Your task to perform on an android device: check google app version Image 0: 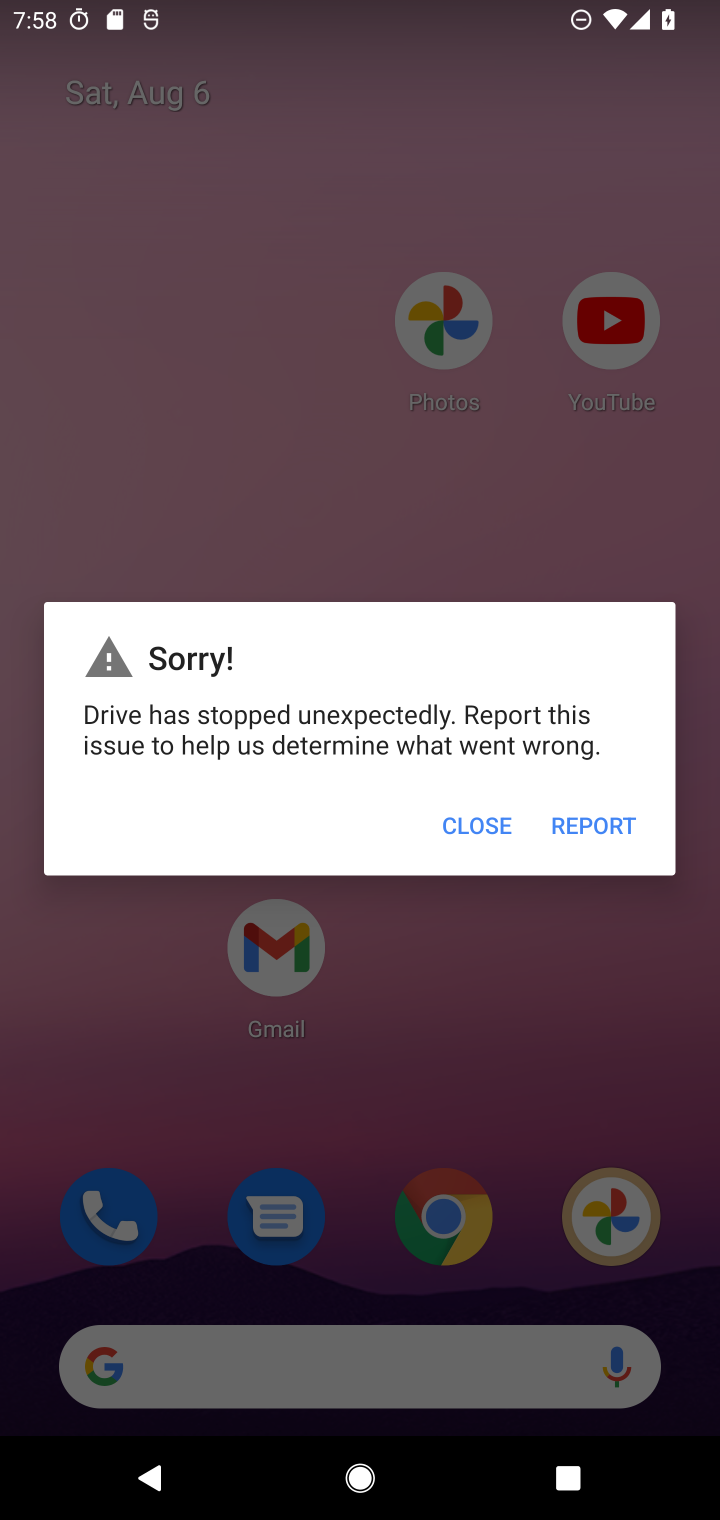
Step 0: press home button
Your task to perform on an android device: check google app version Image 1: 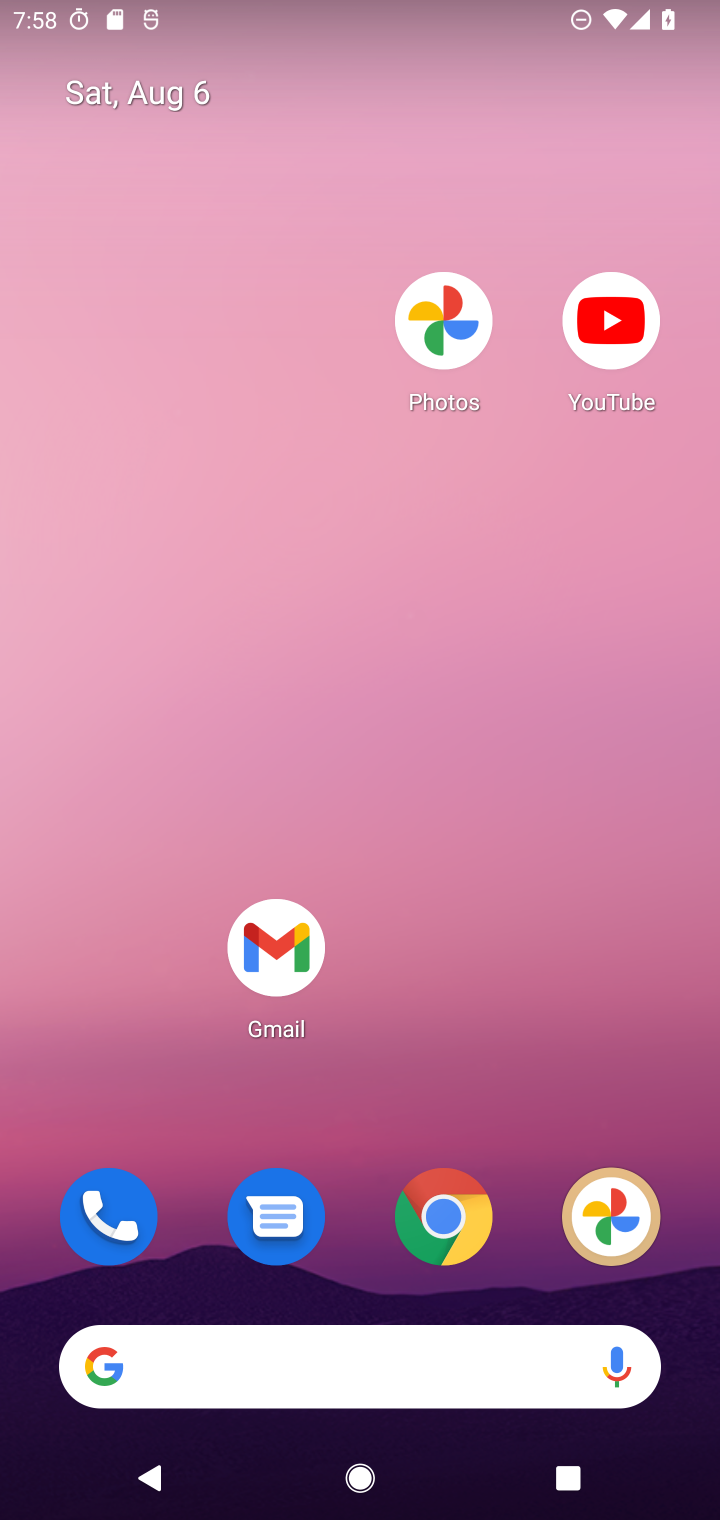
Step 1: drag from (547, 848) to (535, 190)
Your task to perform on an android device: check google app version Image 2: 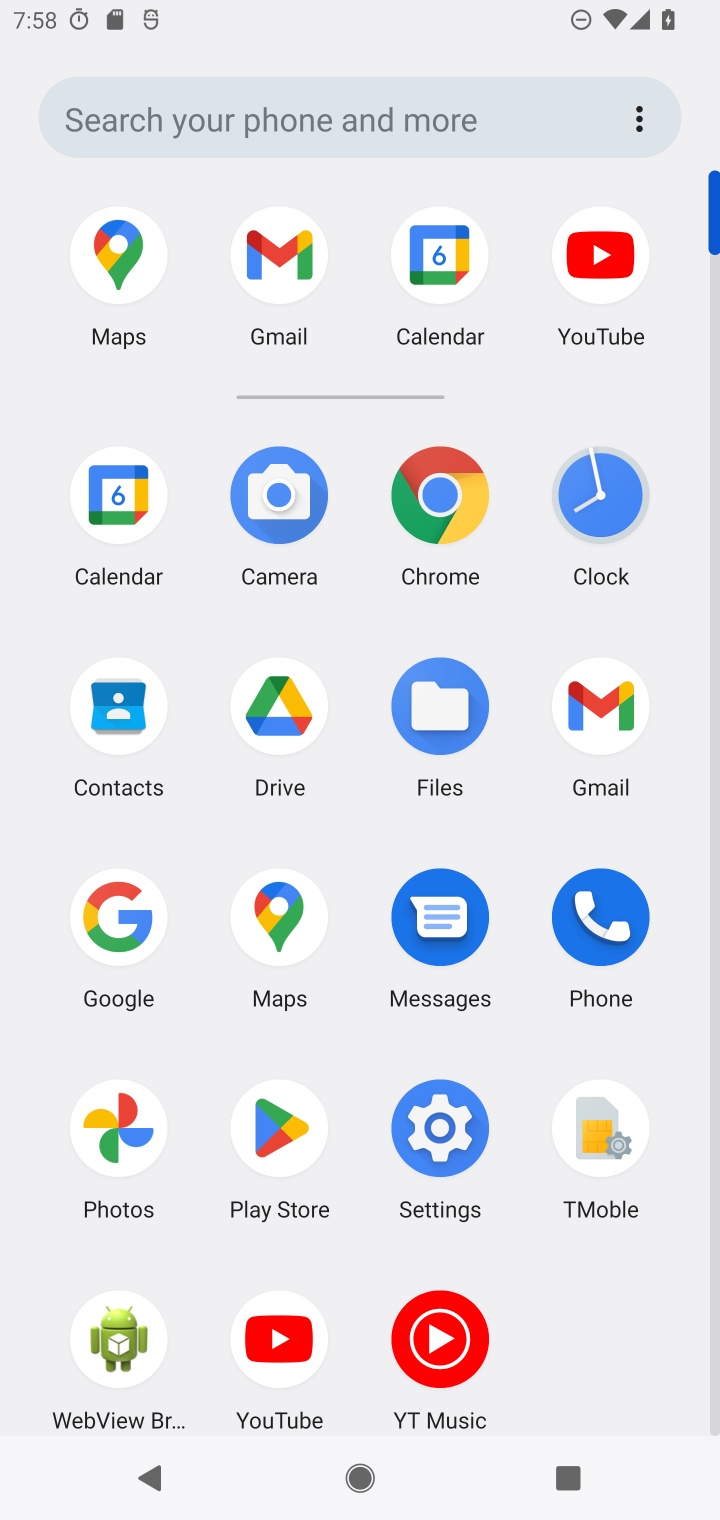
Step 2: click (115, 911)
Your task to perform on an android device: check google app version Image 3: 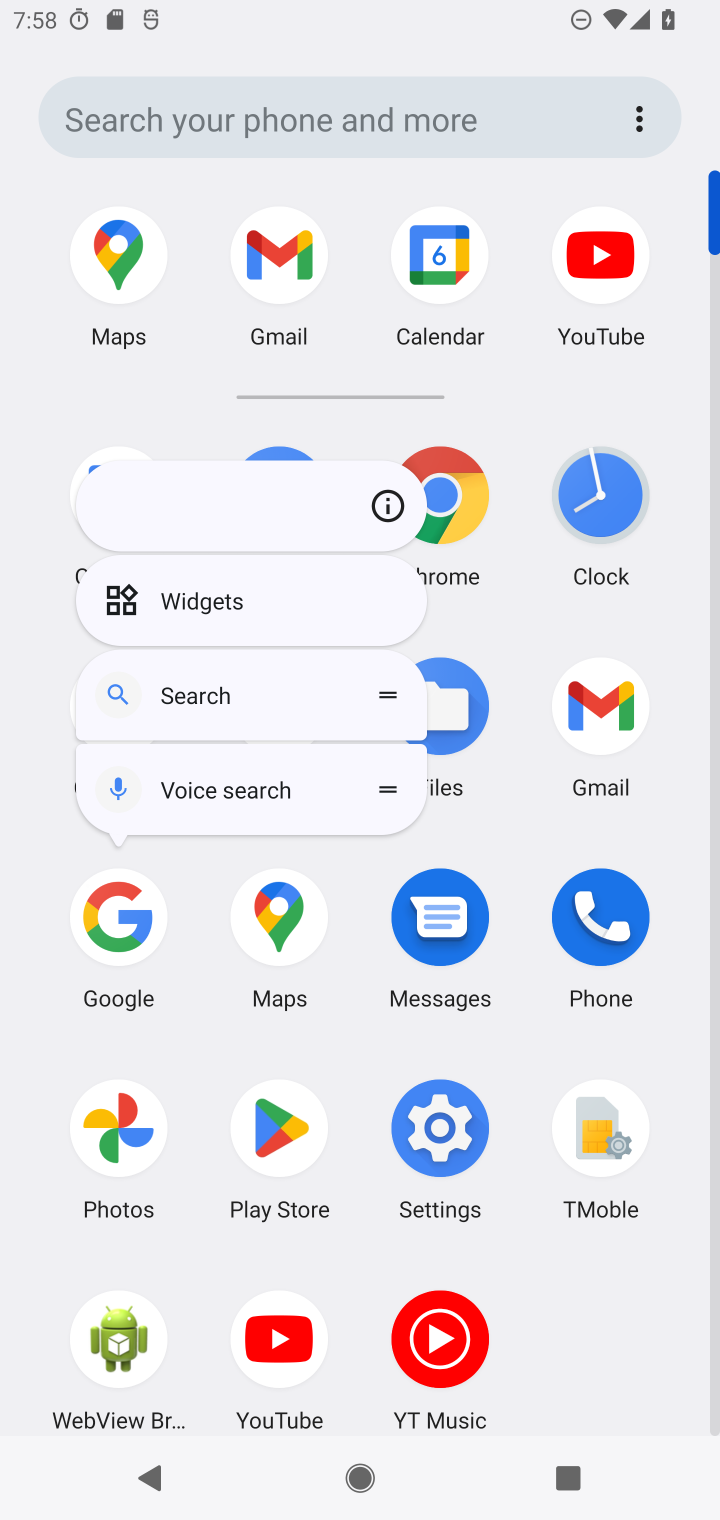
Step 3: click (394, 500)
Your task to perform on an android device: check google app version Image 4: 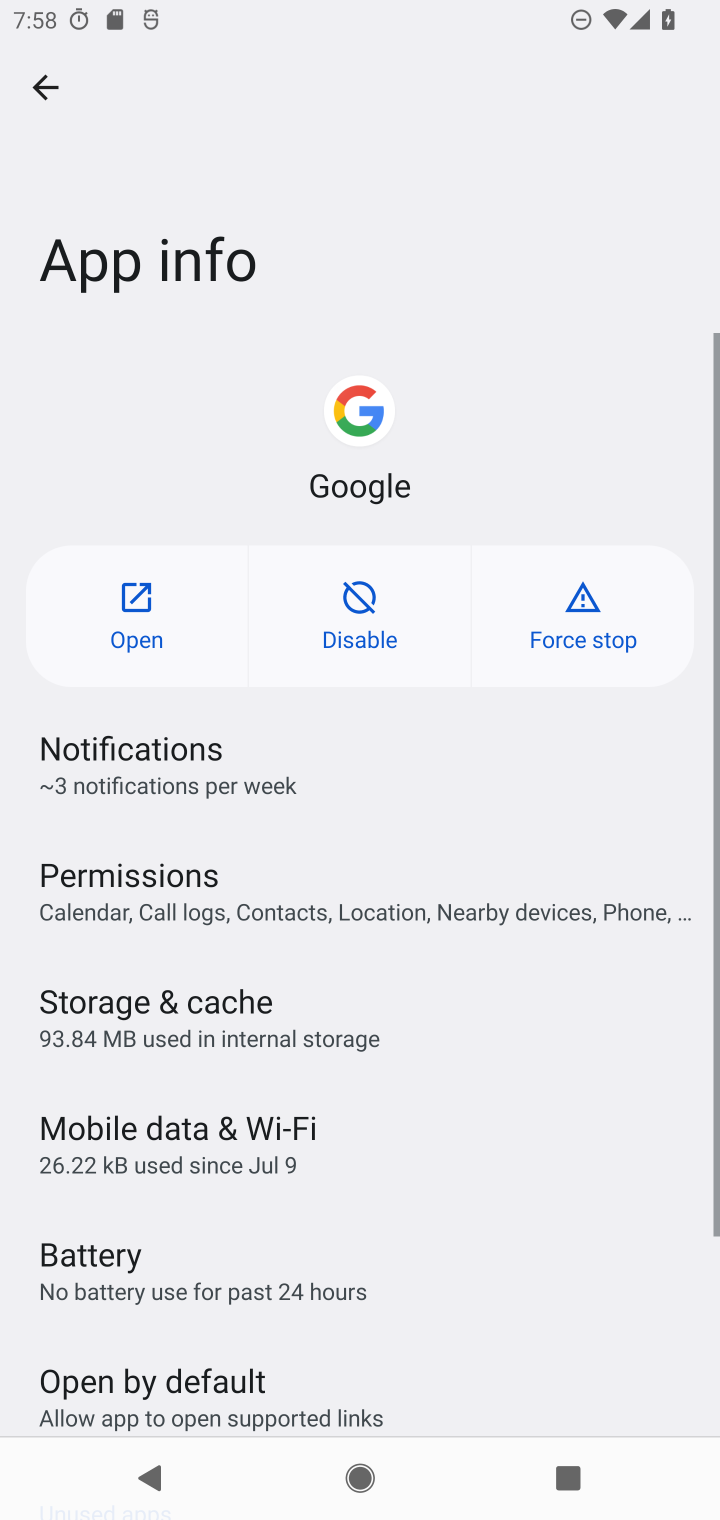
Step 4: task complete